Your task to perform on an android device: turn off improve location accuracy Image 0: 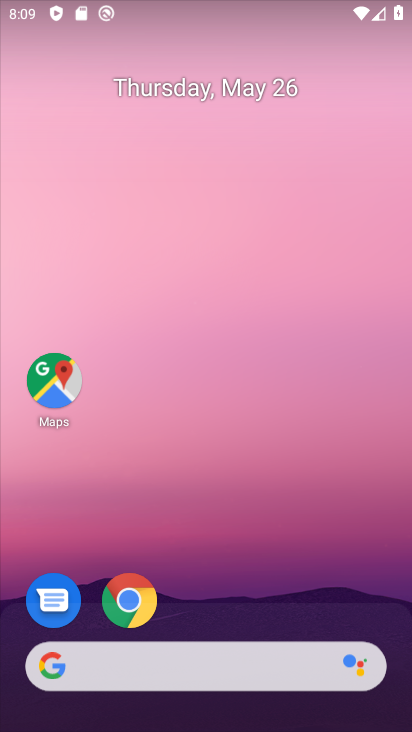
Step 0: drag from (223, 530) to (280, 138)
Your task to perform on an android device: turn off improve location accuracy Image 1: 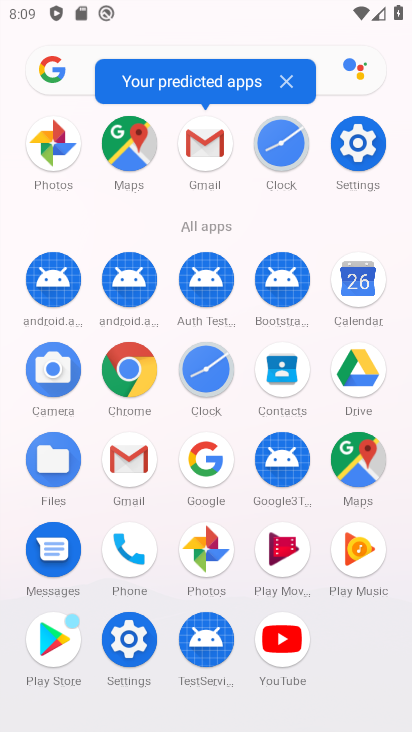
Step 1: click (360, 135)
Your task to perform on an android device: turn off improve location accuracy Image 2: 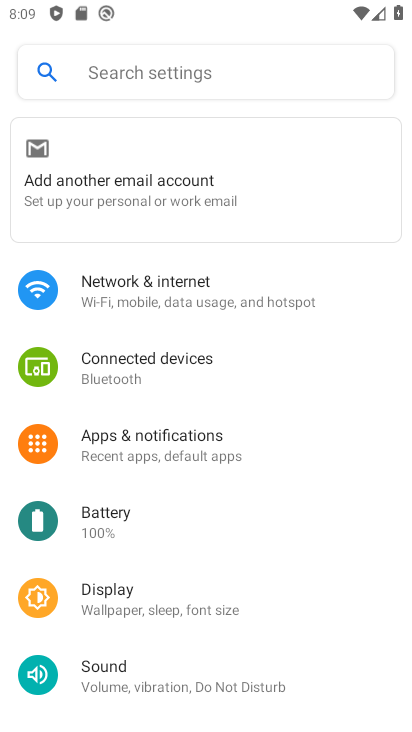
Step 2: drag from (306, 554) to (365, 38)
Your task to perform on an android device: turn off improve location accuracy Image 3: 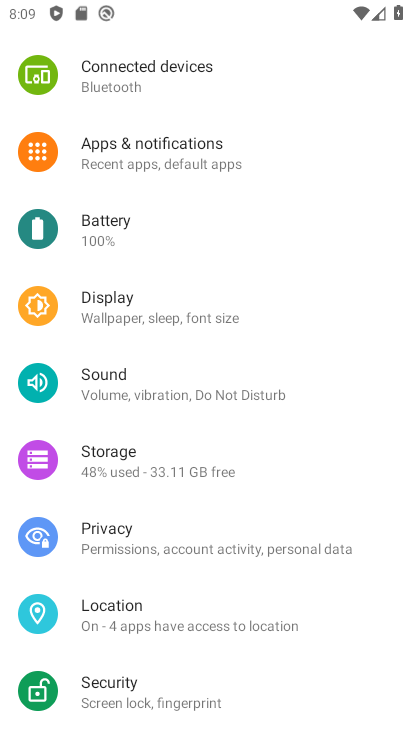
Step 3: click (154, 625)
Your task to perform on an android device: turn off improve location accuracy Image 4: 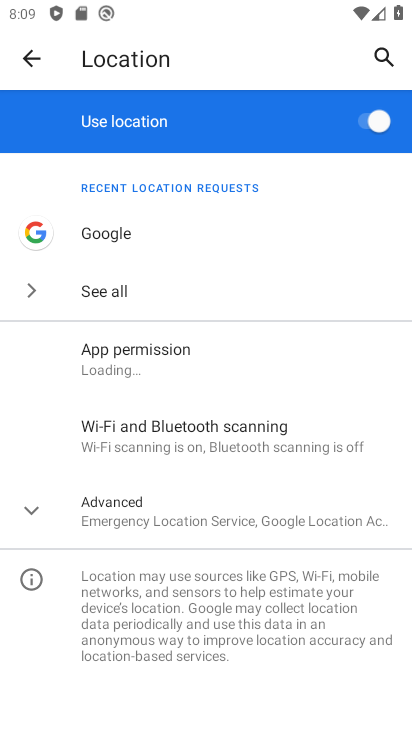
Step 4: click (148, 526)
Your task to perform on an android device: turn off improve location accuracy Image 5: 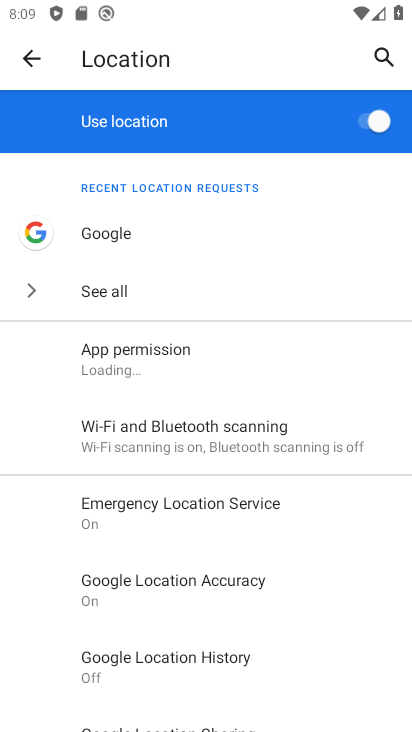
Step 5: click (166, 589)
Your task to perform on an android device: turn off improve location accuracy Image 6: 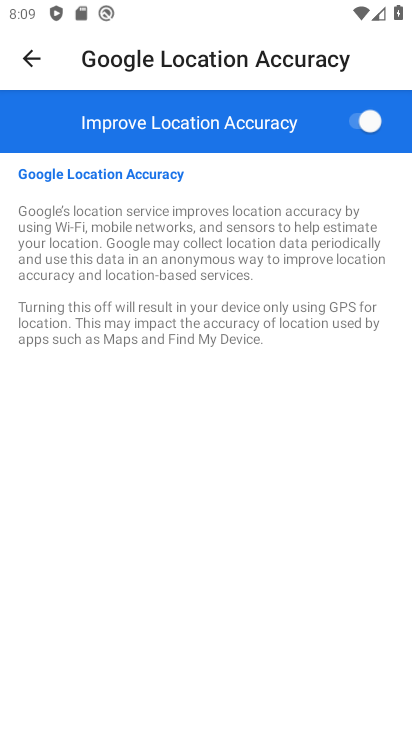
Step 6: click (366, 120)
Your task to perform on an android device: turn off improve location accuracy Image 7: 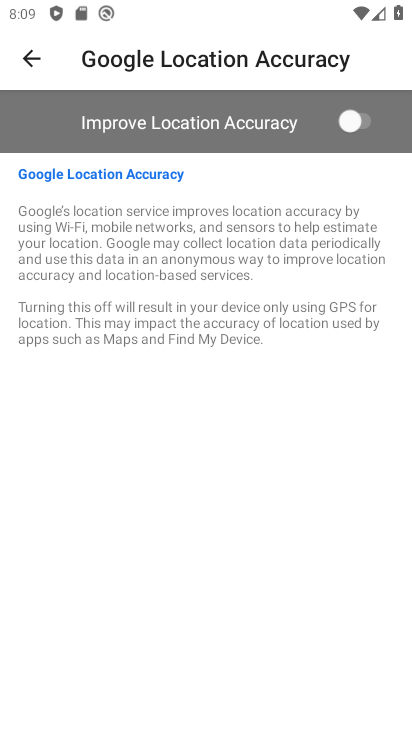
Step 7: task complete